Your task to perform on an android device: Open network settings Image 0: 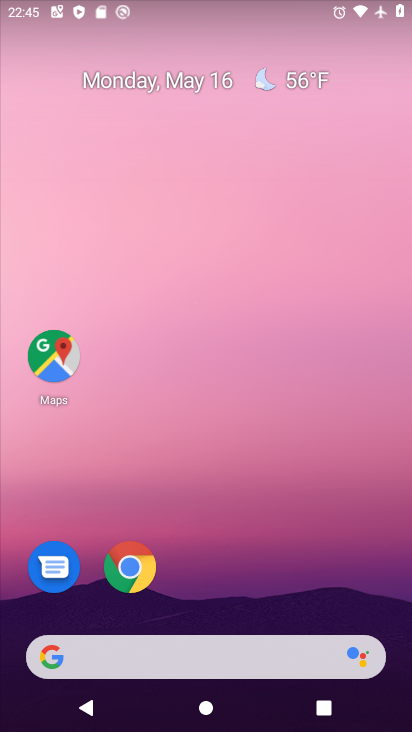
Step 0: drag from (285, 451) to (320, 171)
Your task to perform on an android device: Open network settings Image 1: 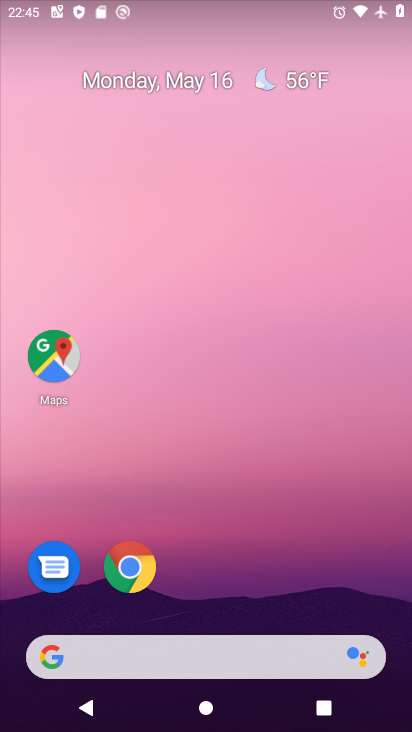
Step 1: drag from (238, 595) to (282, 239)
Your task to perform on an android device: Open network settings Image 2: 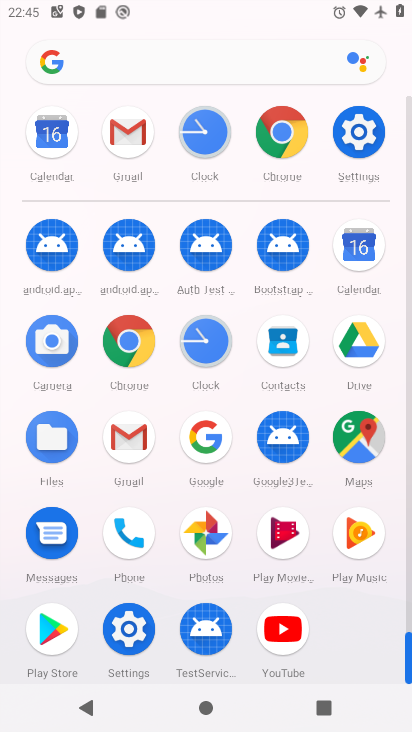
Step 2: click (358, 132)
Your task to perform on an android device: Open network settings Image 3: 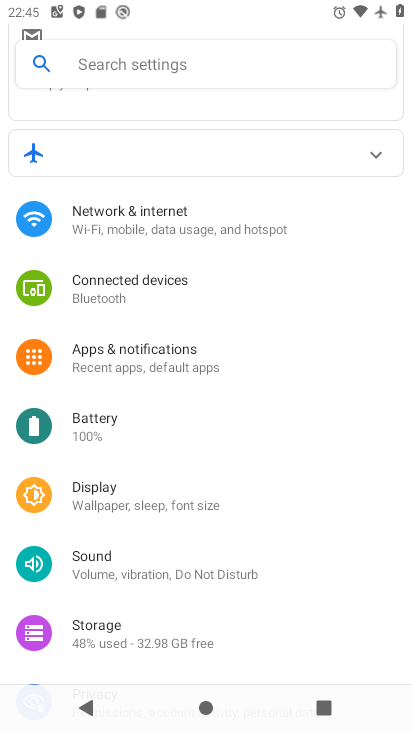
Step 3: click (132, 220)
Your task to perform on an android device: Open network settings Image 4: 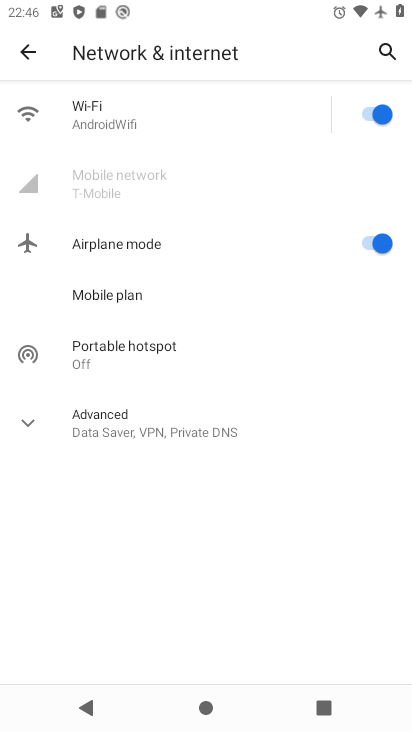
Step 4: task complete